Your task to perform on an android device: Open settings on Google Maps Image 0: 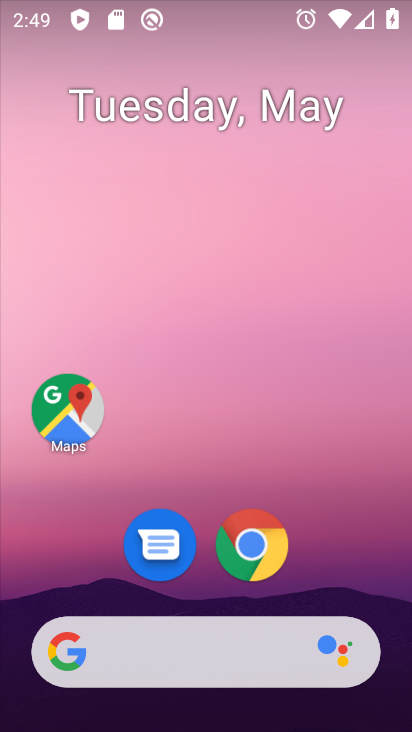
Step 0: drag from (238, 569) to (206, 143)
Your task to perform on an android device: Open settings on Google Maps Image 1: 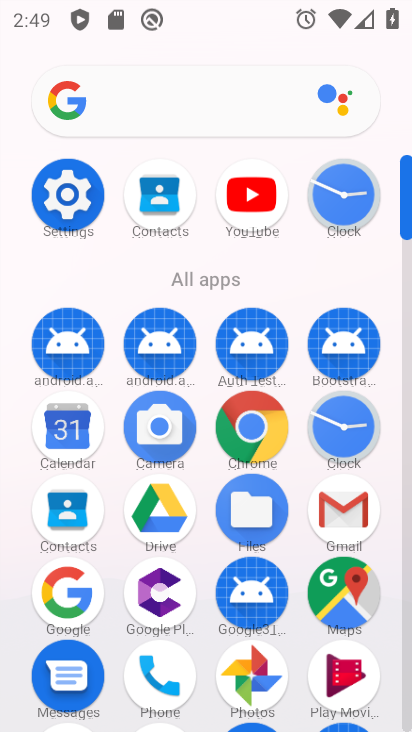
Step 1: click (344, 604)
Your task to perform on an android device: Open settings on Google Maps Image 2: 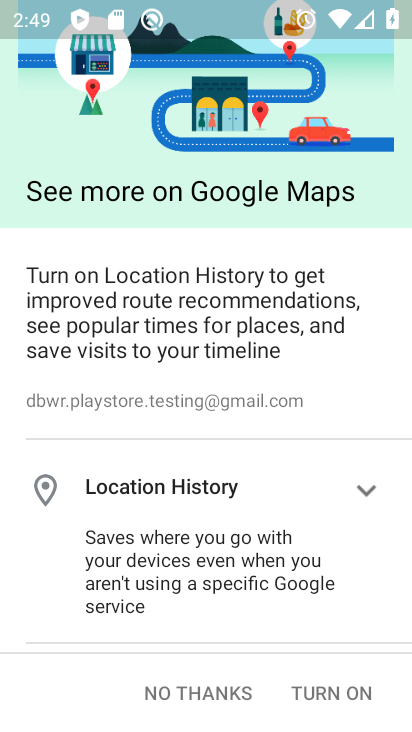
Step 2: task complete